Your task to perform on an android device: toggle wifi Image 0: 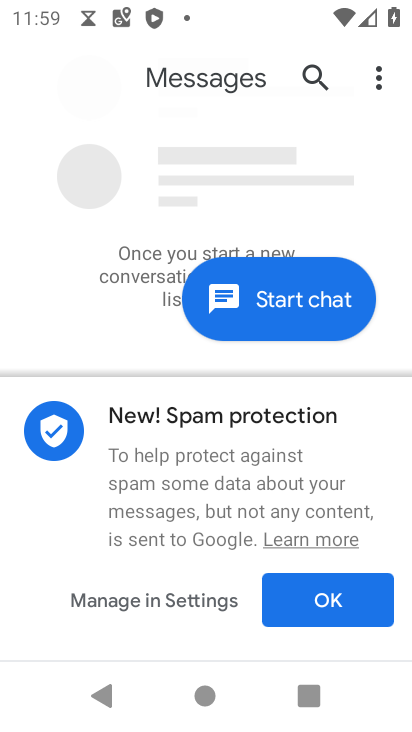
Step 0: press home button
Your task to perform on an android device: toggle wifi Image 1: 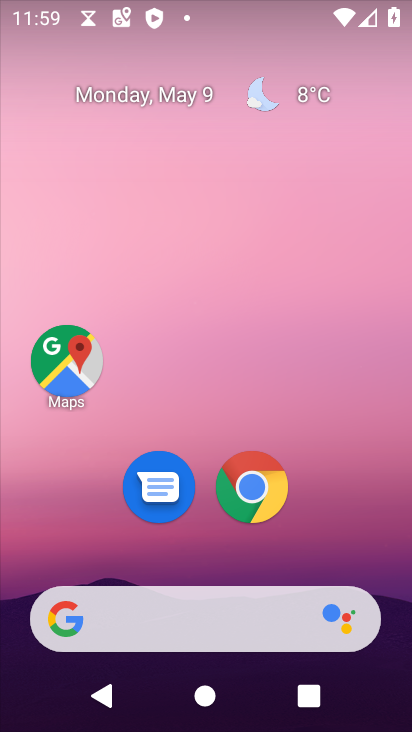
Step 1: drag from (212, 520) to (256, 0)
Your task to perform on an android device: toggle wifi Image 2: 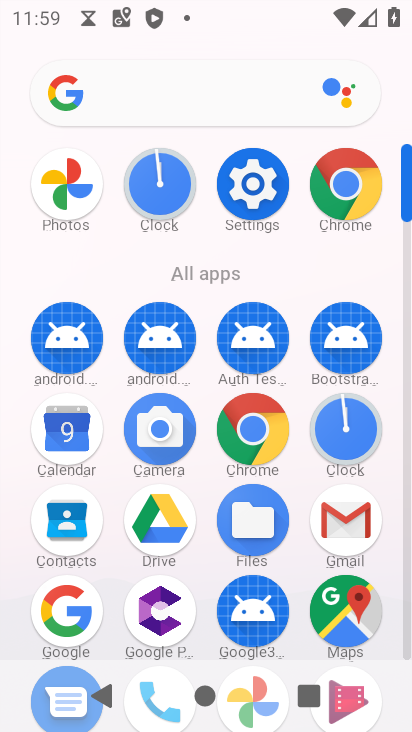
Step 2: click (250, 173)
Your task to perform on an android device: toggle wifi Image 3: 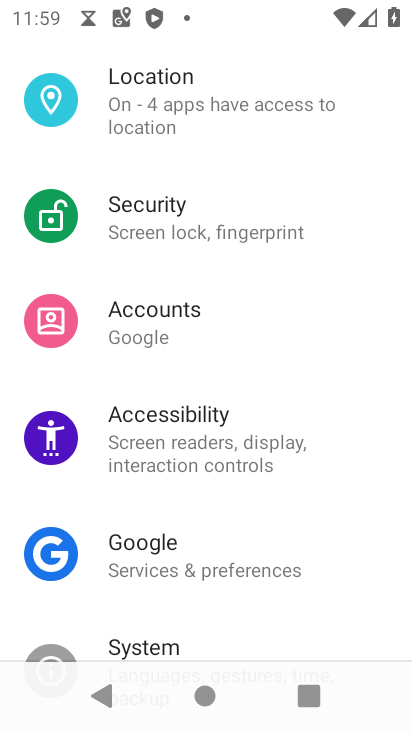
Step 3: drag from (116, 3) to (123, 441)
Your task to perform on an android device: toggle wifi Image 4: 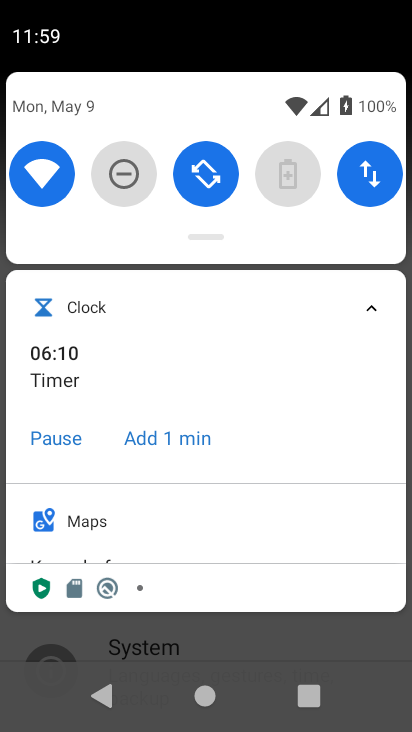
Step 4: click (59, 168)
Your task to perform on an android device: toggle wifi Image 5: 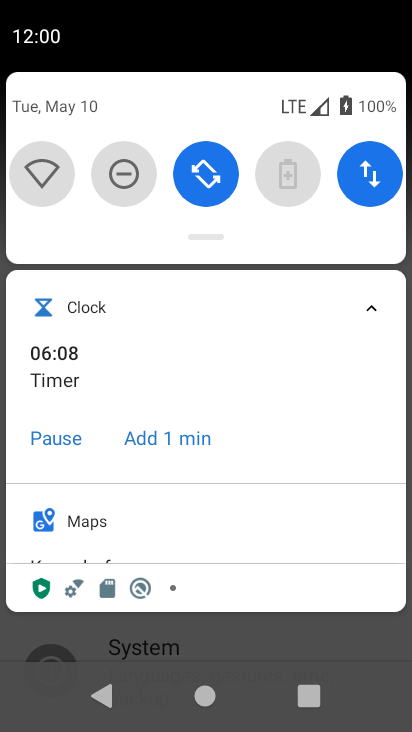
Step 5: task complete